Your task to perform on an android device: What's the weather going to be this weekend? Image 0: 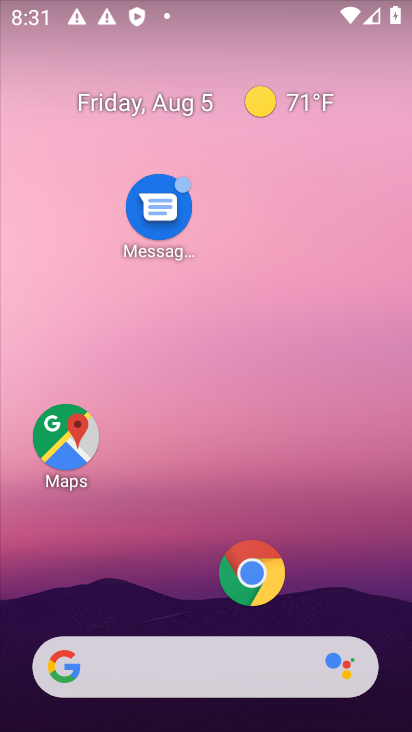
Step 0: press home button
Your task to perform on an android device: What's the weather going to be this weekend? Image 1: 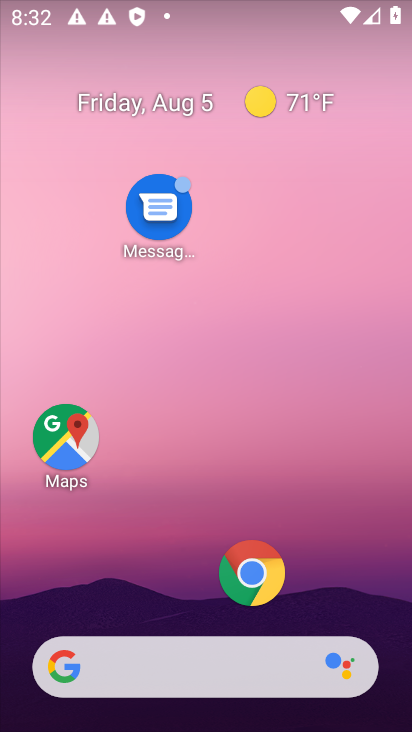
Step 1: click (299, 102)
Your task to perform on an android device: What's the weather going to be this weekend? Image 2: 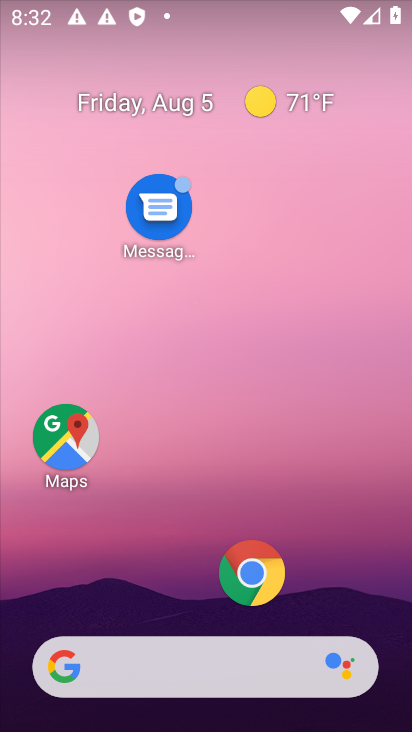
Step 2: click (299, 105)
Your task to perform on an android device: What's the weather going to be this weekend? Image 3: 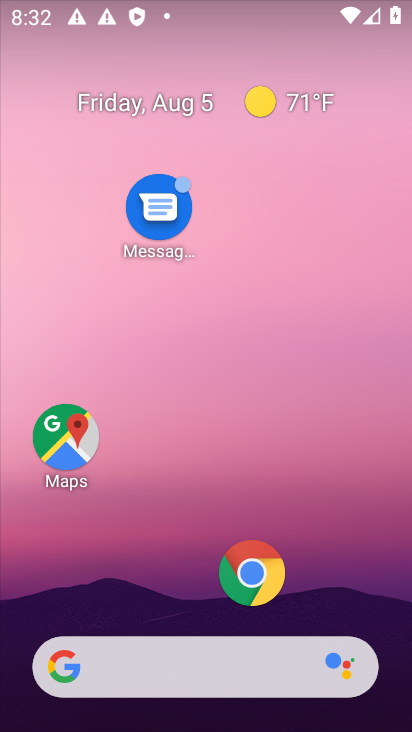
Step 3: click (300, 107)
Your task to perform on an android device: What's the weather going to be this weekend? Image 4: 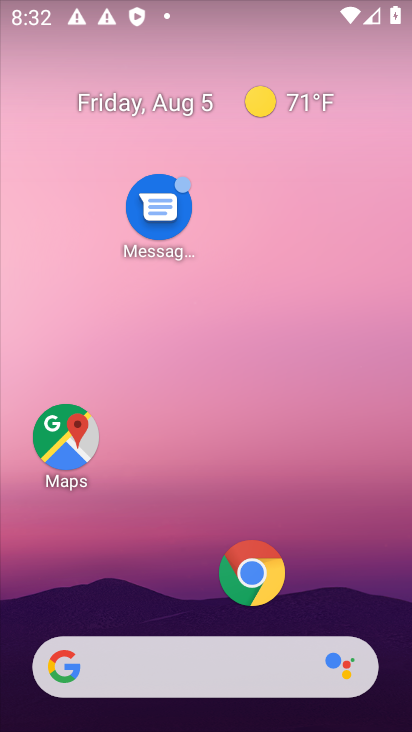
Step 4: click (266, 102)
Your task to perform on an android device: What's the weather going to be this weekend? Image 5: 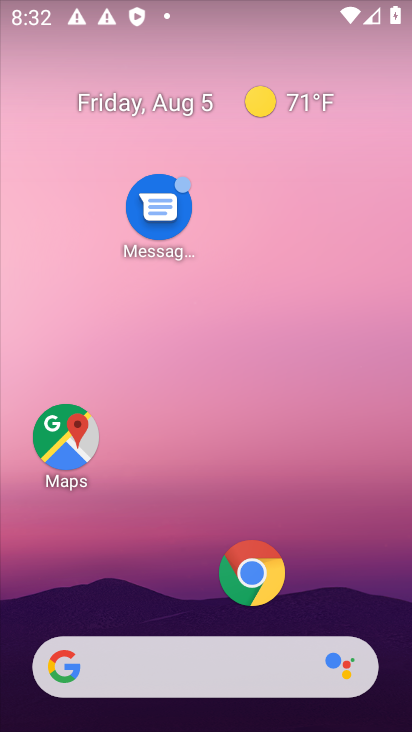
Step 5: click (276, 107)
Your task to perform on an android device: What's the weather going to be this weekend? Image 6: 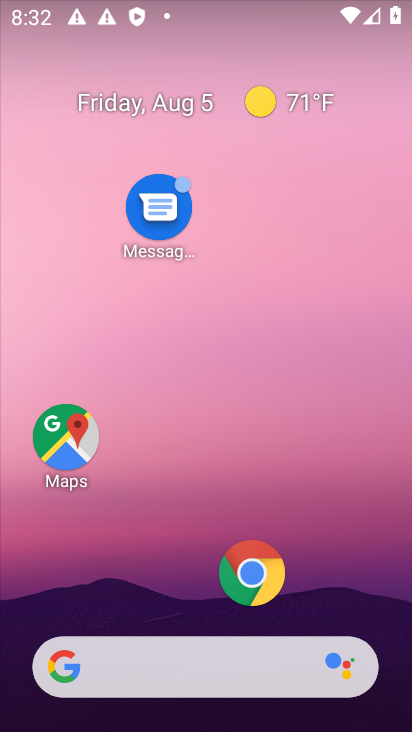
Step 6: click (164, 660)
Your task to perform on an android device: What's the weather going to be this weekend? Image 7: 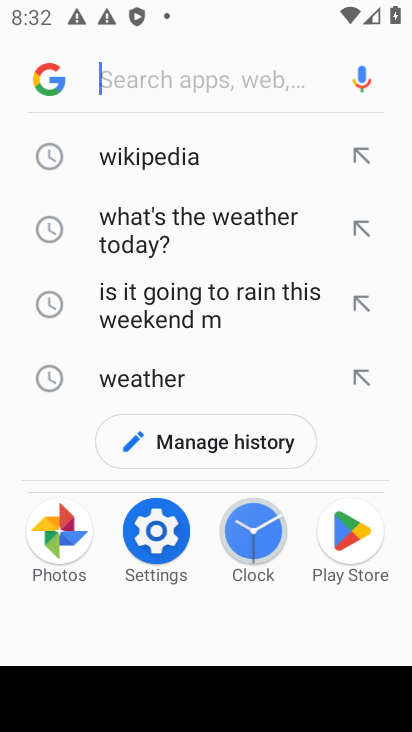
Step 7: click (169, 370)
Your task to perform on an android device: What's the weather going to be this weekend? Image 8: 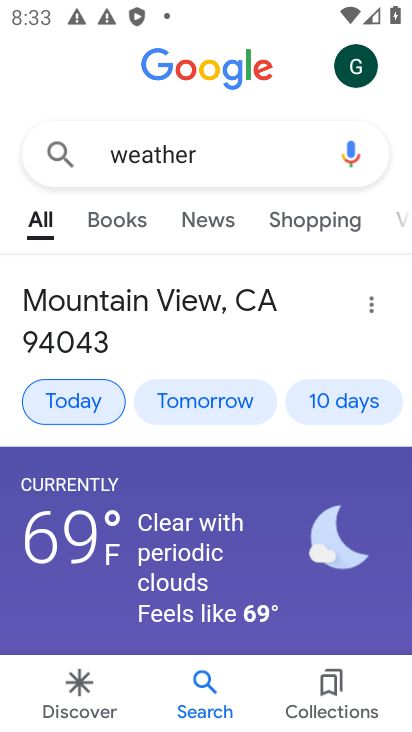
Step 8: click (324, 390)
Your task to perform on an android device: What's the weather going to be this weekend? Image 9: 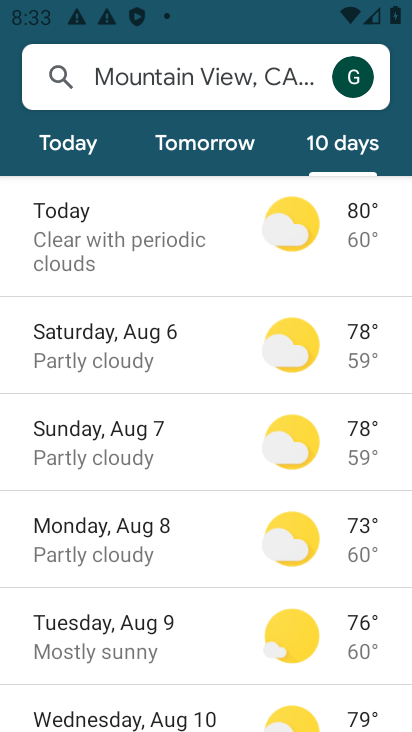
Step 9: click (160, 341)
Your task to perform on an android device: What's the weather going to be this weekend? Image 10: 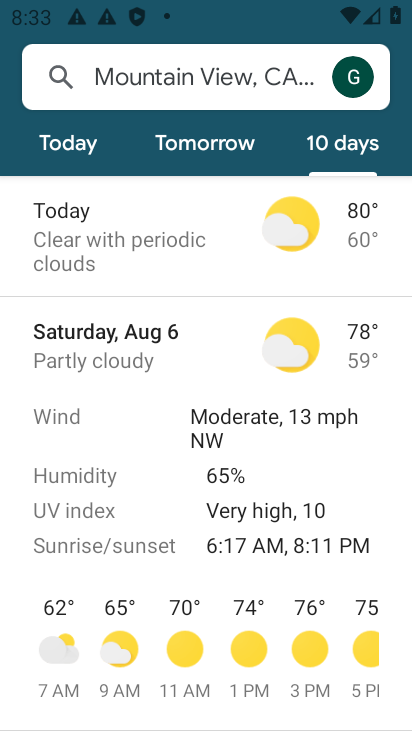
Step 10: drag from (176, 537) to (226, 268)
Your task to perform on an android device: What's the weather going to be this weekend? Image 11: 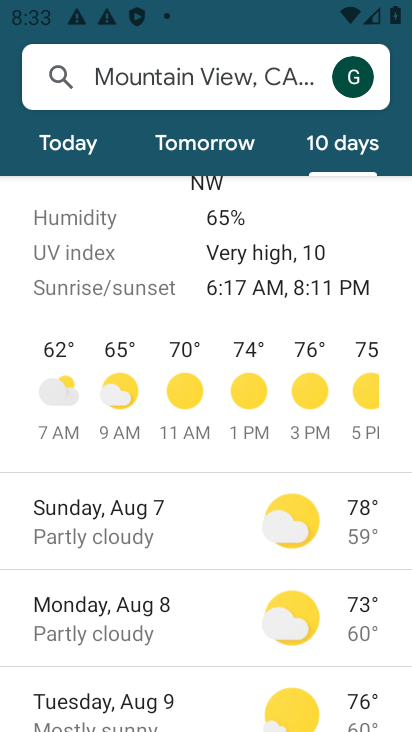
Step 11: click (175, 515)
Your task to perform on an android device: What's the weather going to be this weekend? Image 12: 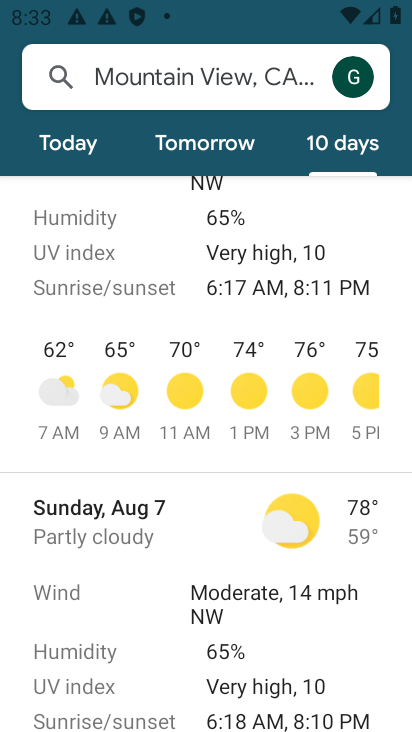
Step 12: task complete